Your task to perform on an android device: toggle wifi Image 0: 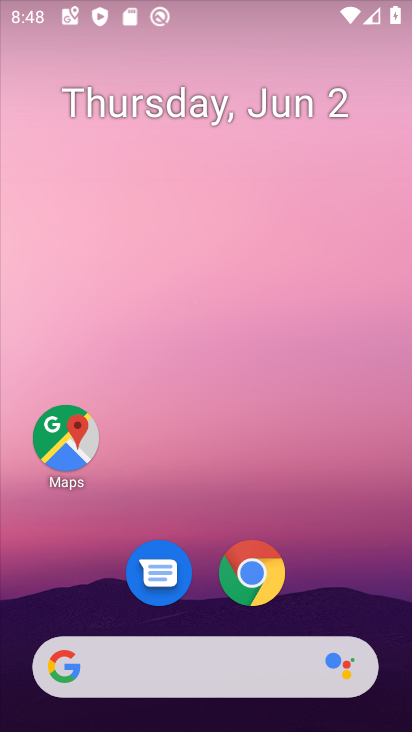
Step 0: press home button
Your task to perform on an android device: toggle wifi Image 1: 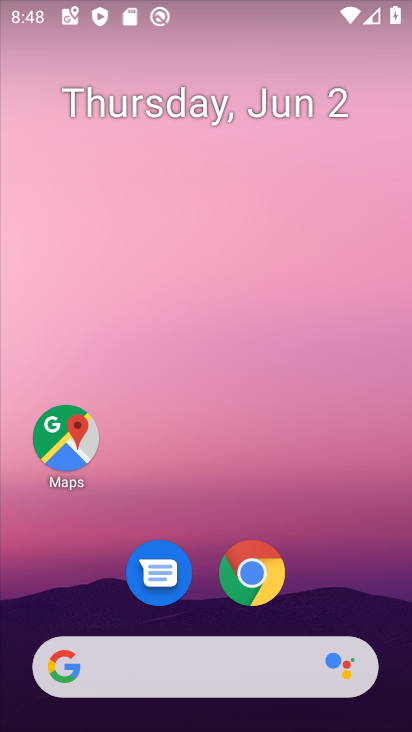
Step 1: drag from (378, 13) to (340, 540)
Your task to perform on an android device: toggle wifi Image 2: 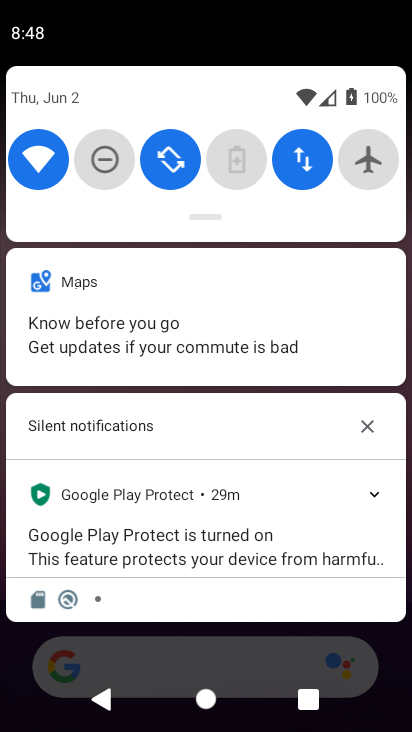
Step 2: click (49, 182)
Your task to perform on an android device: toggle wifi Image 3: 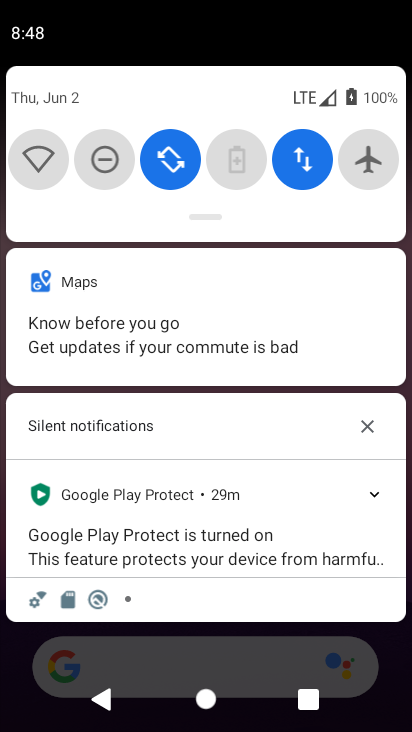
Step 3: task complete